Your task to perform on an android device: turn on improve location accuracy Image 0: 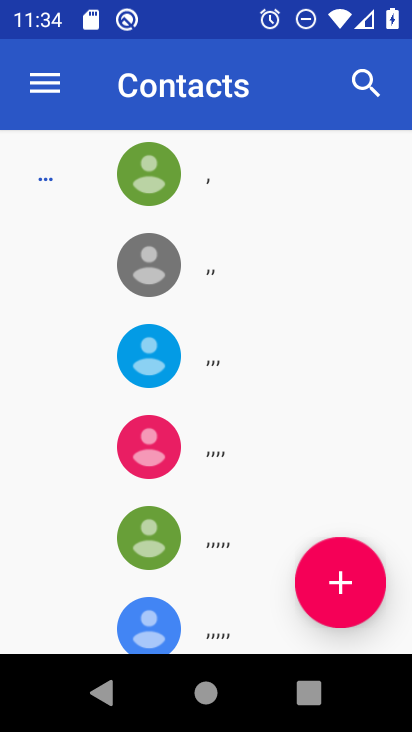
Step 0: press home button
Your task to perform on an android device: turn on improve location accuracy Image 1: 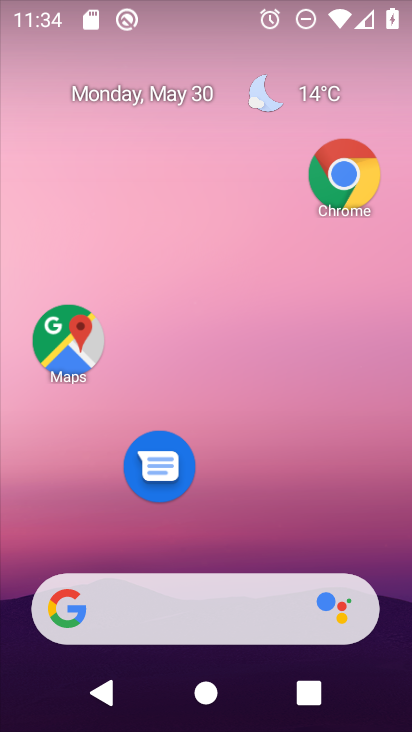
Step 1: drag from (266, 452) to (264, 107)
Your task to perform on an android device: turn on improve location accuracy Image 2: 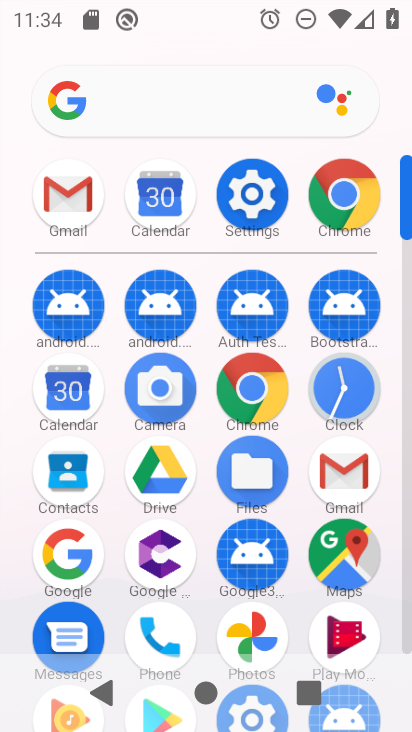
Step 2: click (240, 189)
Your task to perform on an android device: turn on improve location accuracy Image 3: 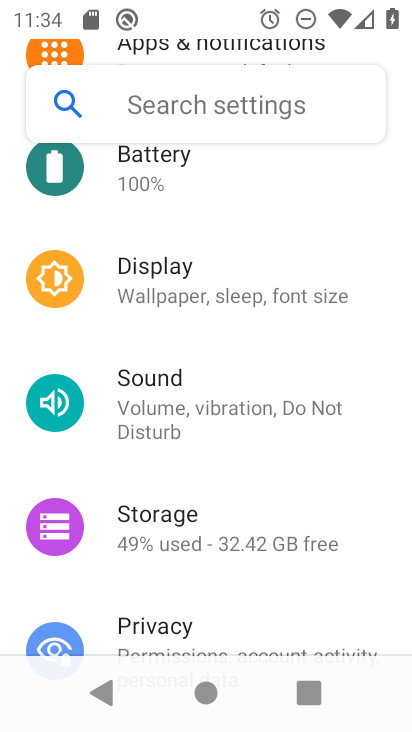
Step 3: drag from (233, 191) to (253, 494)
Your task to perform on an android device: turn on improve location accuracy Image 4: 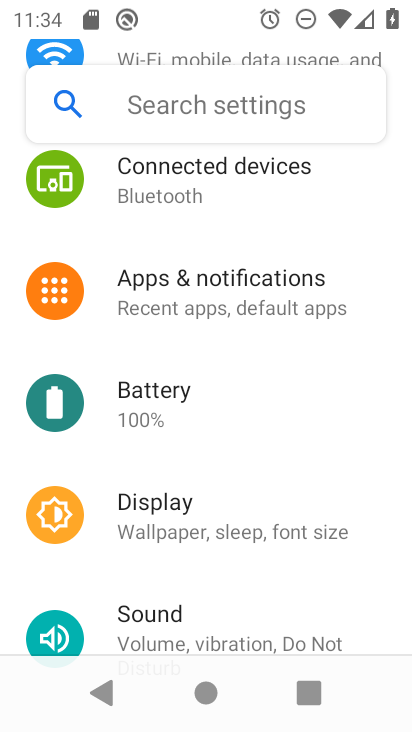
Step 4: drag from (230, 522) to (227, 254)
Your task to perform on an android device: turn on improve location accuracy Image 5: 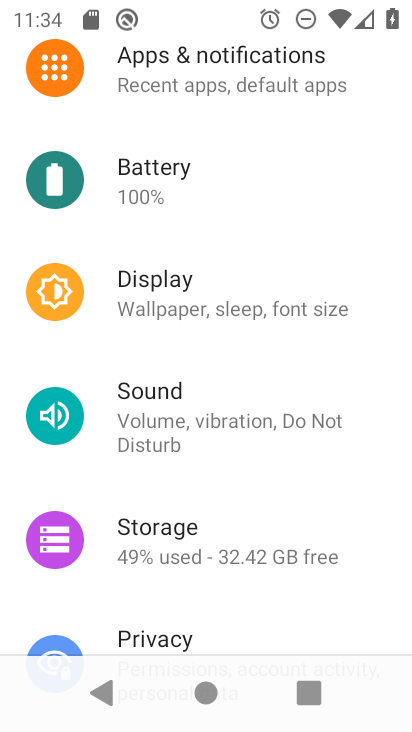
Step 5: drag from (186, 544) to (201, 271)
Your task to perform on an android device: turn on improve location accuracy Image 6: 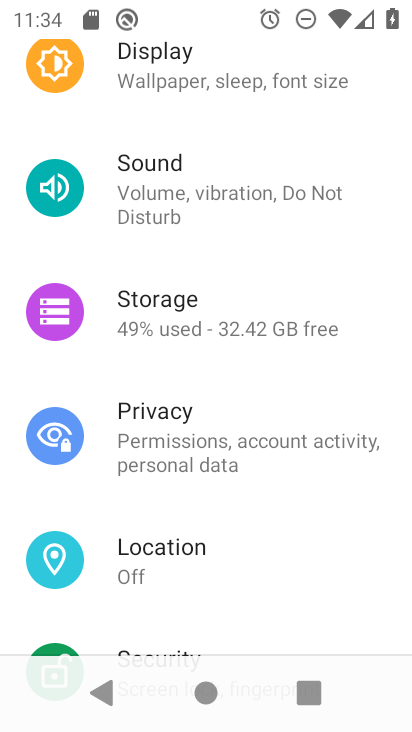
Step 6: click (229, 579)
Your task to perform on an android device: turn on improve location accuracy Image 7: 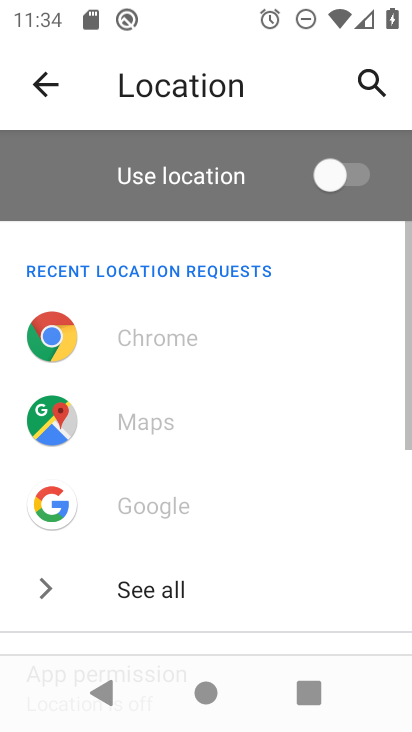
Step 7: drag from (196, 556) to (244, 166)
Your task to perform on an android device: turn on improve location accuracy Image 8: 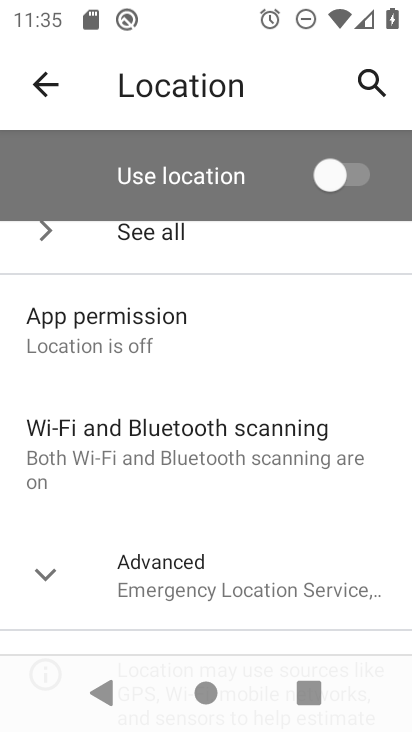
Step 8: click (194, 564)
Your task to perform on an android device: turn on improve location accuracy Image 9: 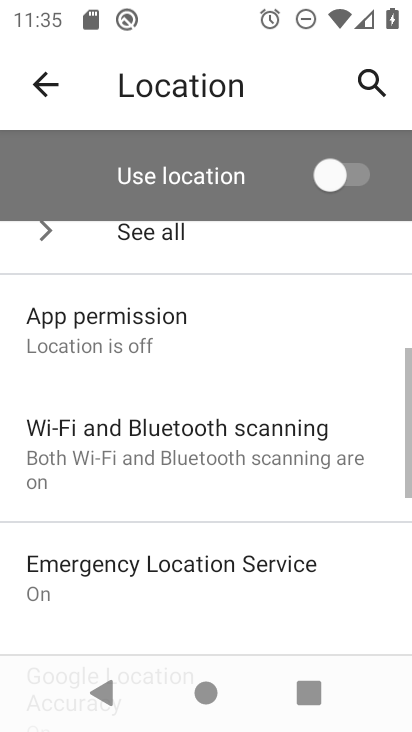
Step 9: drag from (197, 525) to (222, 215)
Your task to perform on an android device: turn on improve location accuracy Image 10: 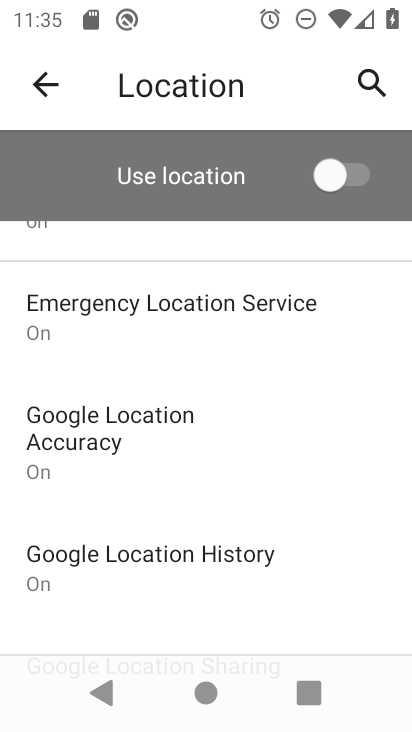
Step 10: drag from (131, 491) to (166, 207)
Your task to perform on an android device: turn on improve location accuracy Image 11: 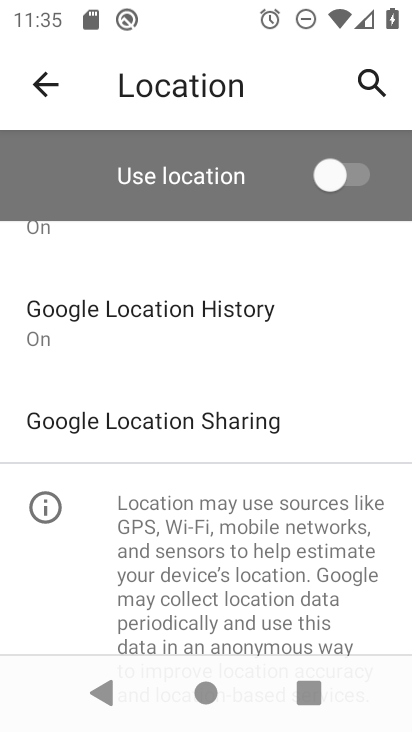
Step 11: drag from (183, 304) to (245, 528)
Your task to perform on an android device: turn on improve location accuracy Image 12: 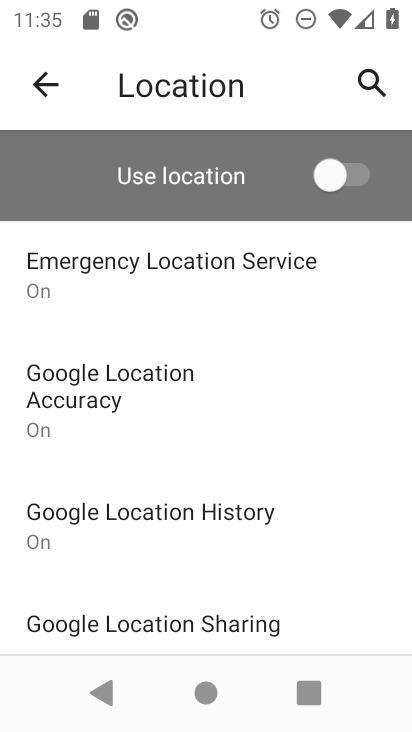
Step 12: click (226, 428)
Your task to perform on an android device: turn on improve location accuracy Image 13: 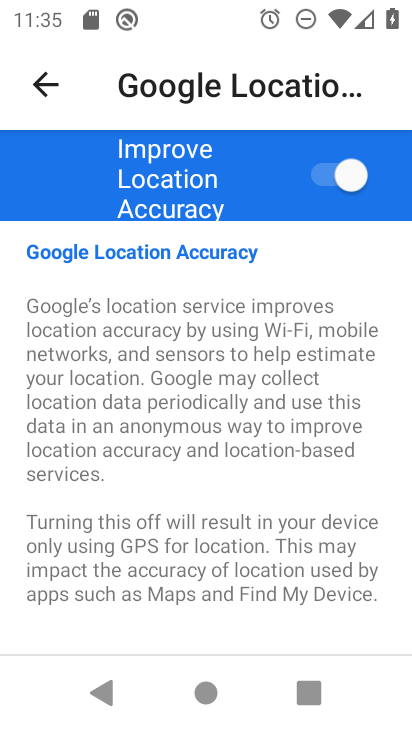
Step 13: task complete